Your task to perform on an android device: delete browsing data in the chrome app Image 0: 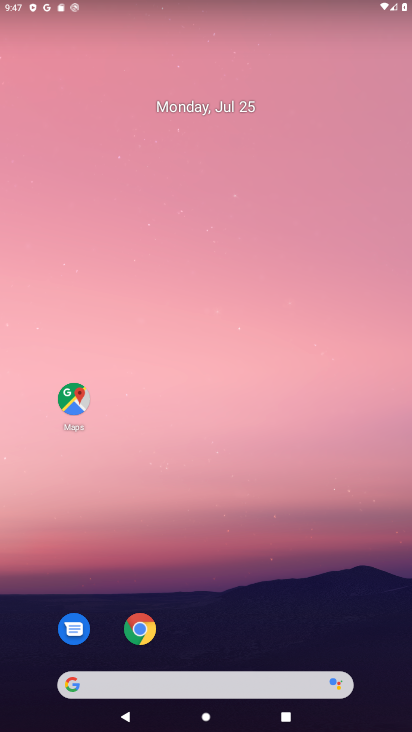
Step 0: click (146, 635)
Your task to perform on an android device: delete browsing data in the chrome app Image 1: 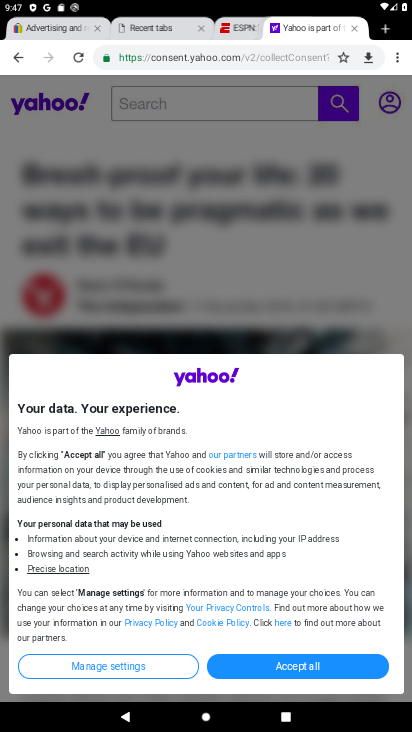
Step 1: click (401, 62)
Your task to perform on an android device: delete browsing data in the chrome app Image 2: 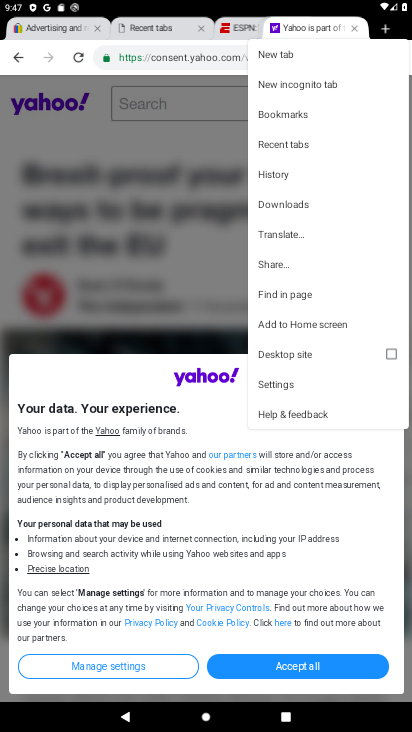
Step 2: click (297, 182)
Your task to perform on an android device: delete browsing data in the chrome app Image 3: 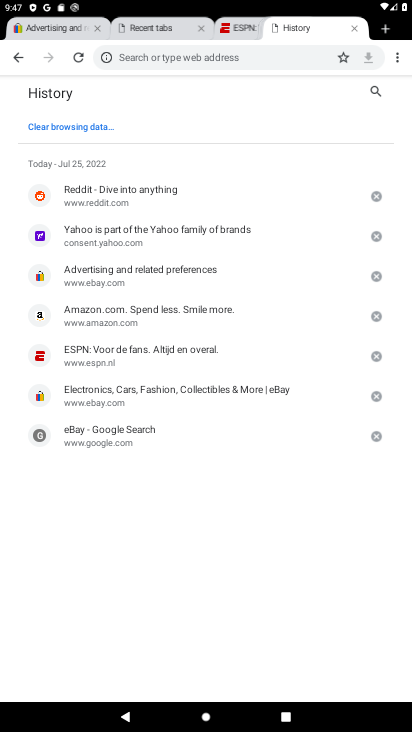
Step 3: click (99, 122)
Your task to perform on an android device: delete browsing data in the chrome app Image 4: 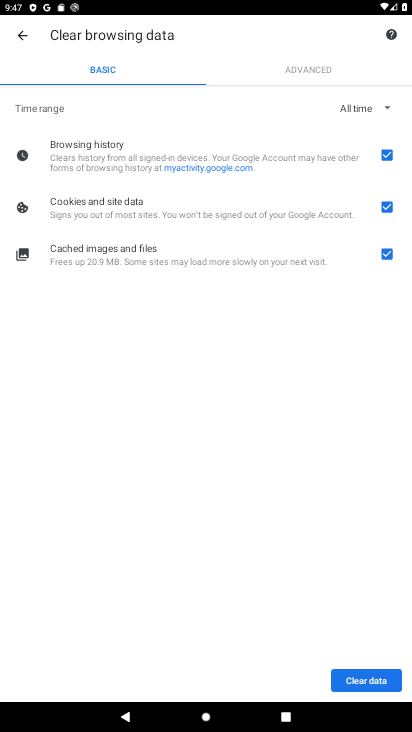
Step 4: click (391, 204)
Your task to perform on an android device: delete browsing data in the chrome app Image 5: 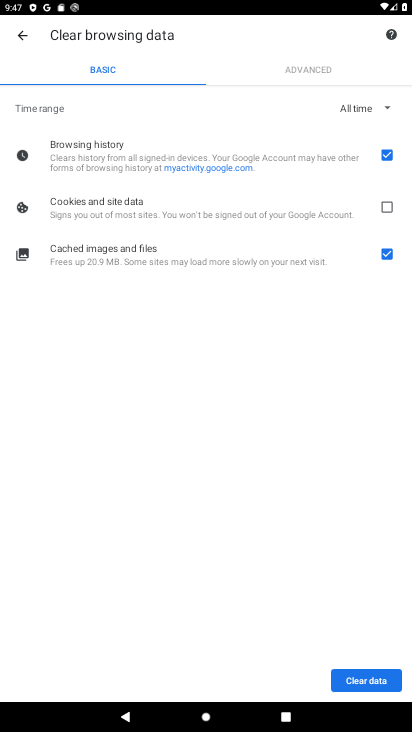
Step 5: click (386, 255)
Your task to perform on an android device: delete browsing data in the chrome app Image 6: 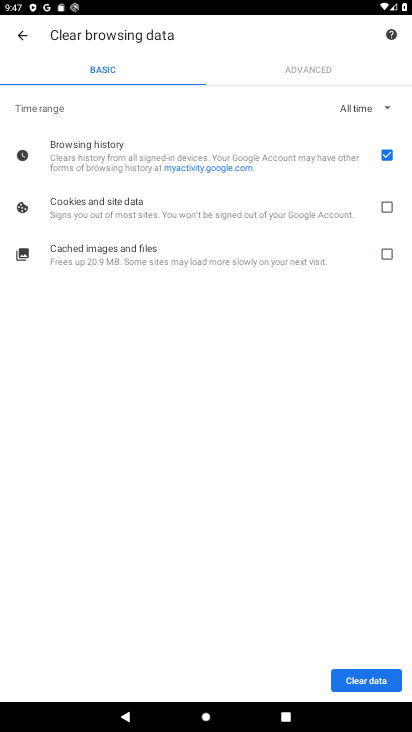
Step 6: click (367, 683)
Your task to perform on an android device: delete browsing data in the chrome app Image 7: 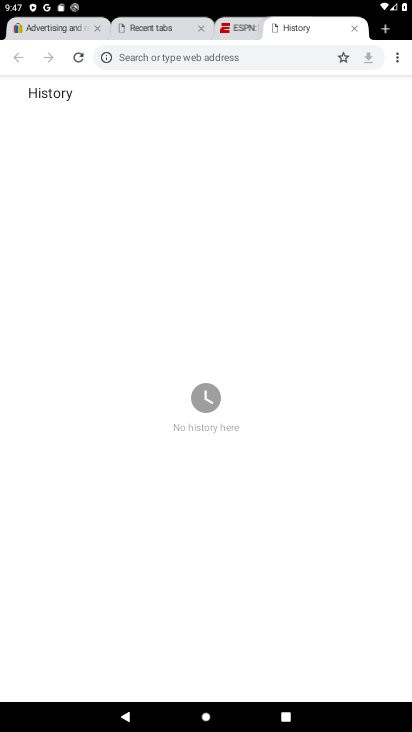
Step 7: task complete